Your task to perform on an android device: Go to Yahoo.com Image 0: 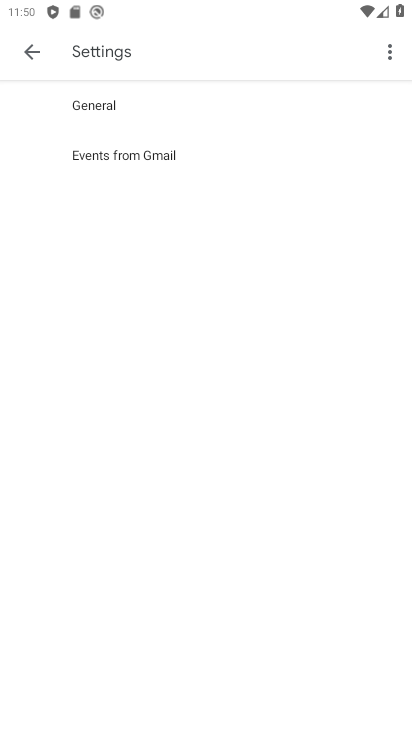
Step 0: press home button
Your task to perform on an android device: Go to Yahoo.com Image 1: 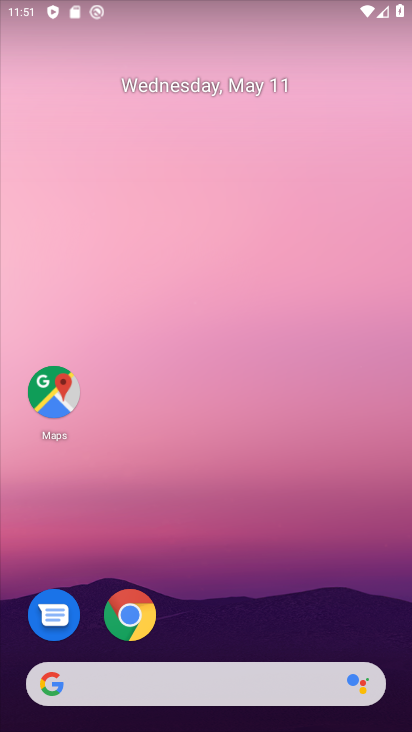
Step 1: drag from (257, 476) to (211, 127)
Your task to perform on an android device: Go to Yahoo.com Image 2: 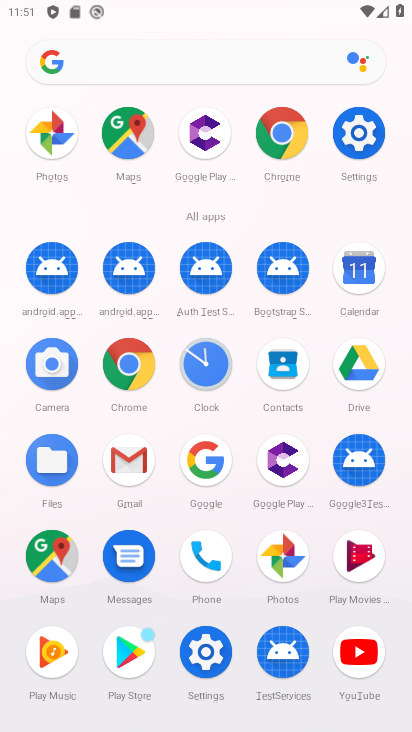
Step 2: click (293, 131)
Your task to perform on an android device: Go to Yahoo.com Image 3: 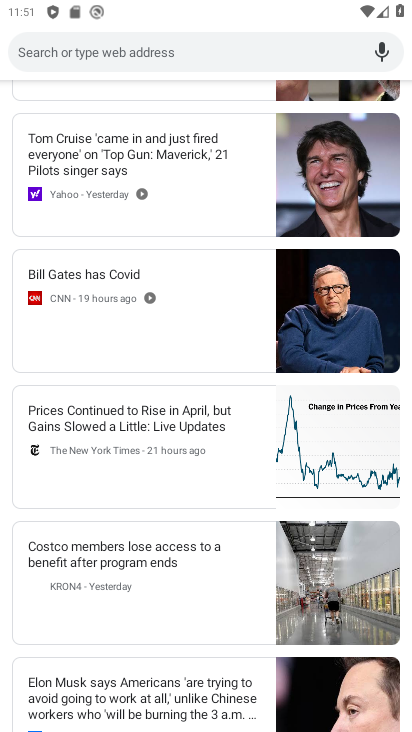
Step 3: drag from (209, 135) to (261, 590)
Your task to perform on an android device: Go to Yahoo.com Image 4: 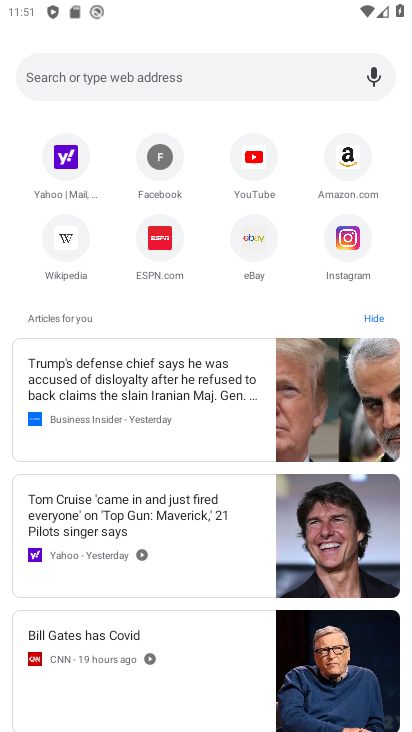
Step 4: click (49, 170)
Your task to perform on an android device: Go to Yahoo.com Image 5: 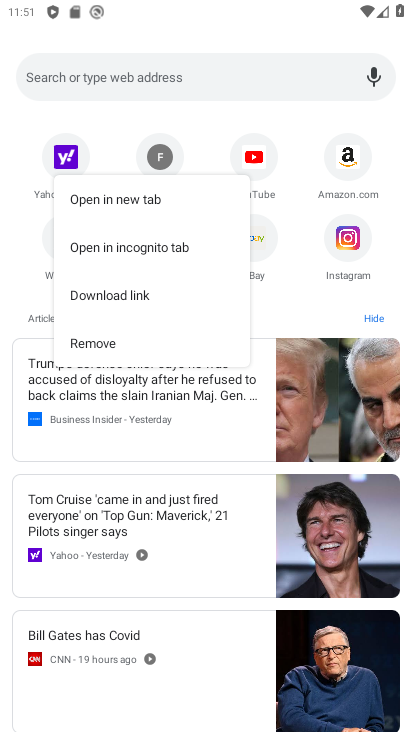
Step 5: click (51, 166)
Your task to perform on an android device: Go to Yahoo.com Image 6: 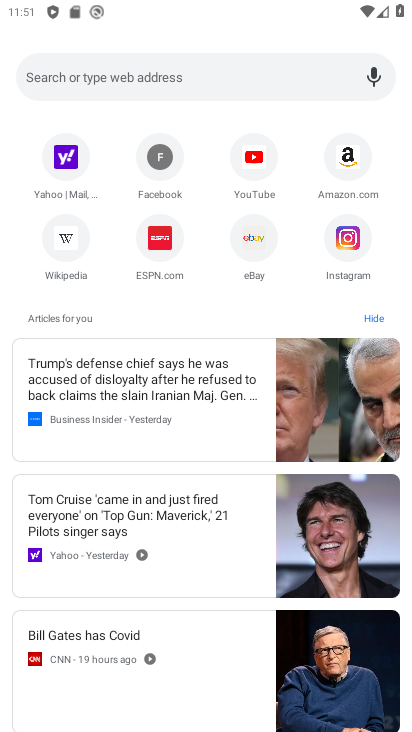
Step 6: click (63, 160)
Your task to perform on an android device: Go to Yahoo.com Image 7: 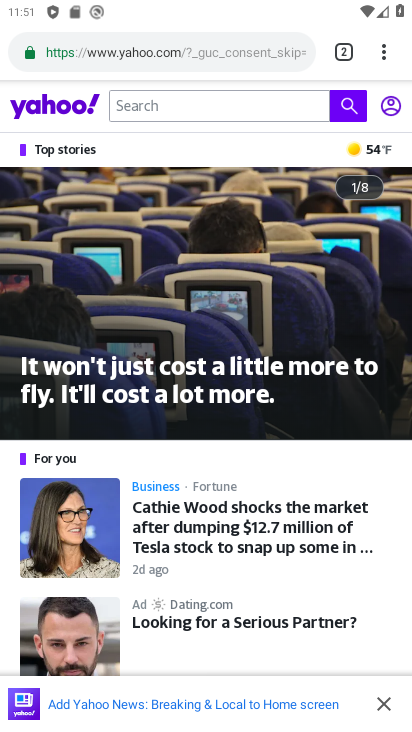
Step 7: task complete